Your task to perform on an android device: Go to Google Image 0: 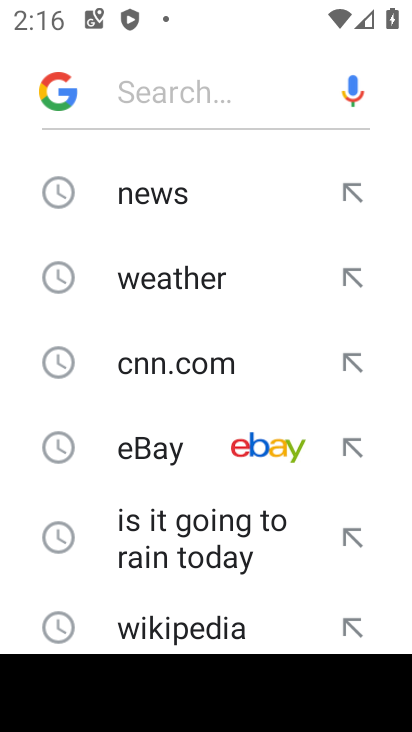
Step 0: press home button
Your task to perform on an android device: Go to Google Image 1: 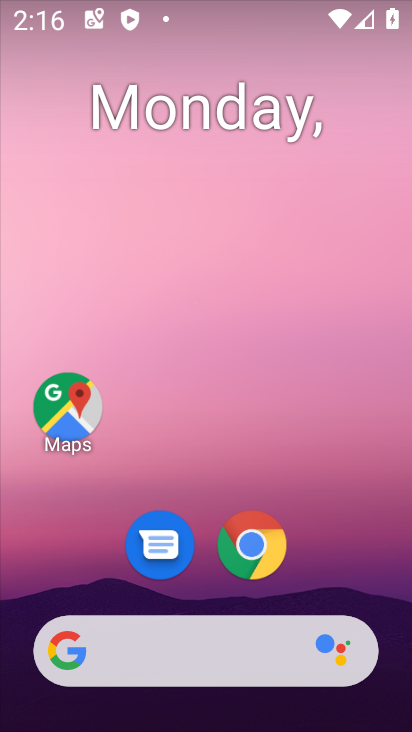
Step 1: drag from (192, 612) to (259, 97)
Your task to perform on an android device: Go to Google Image 2: 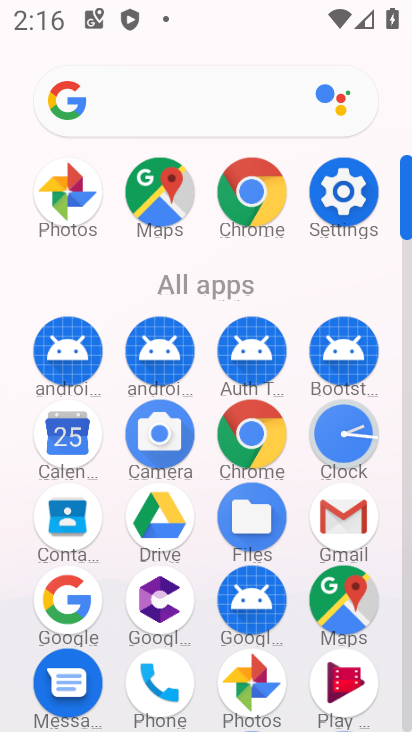
Step 2: click (69, 588)
Your task to perform on an android device: Go to Google Image 3: 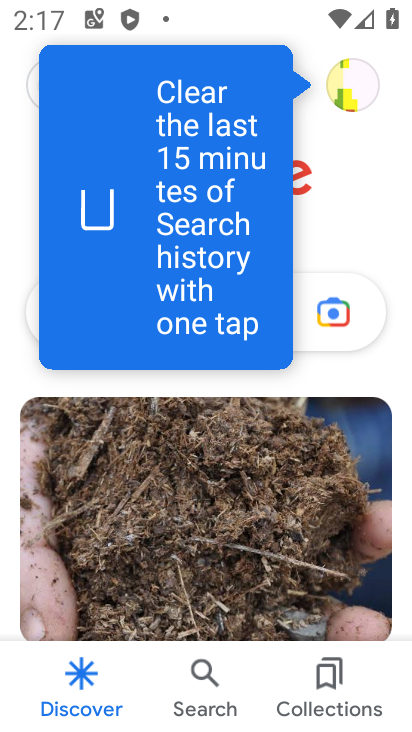
Step 3: task complete